Your task to perform on an android device: turn on showing notifications on the lock screen Image 0: 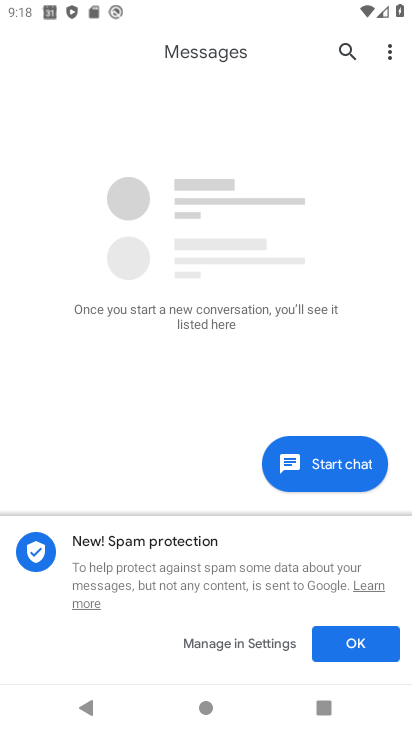
Step 0: press home button
Your task to perform on an android device: turn on showing notifications on the lock screen Image 1: 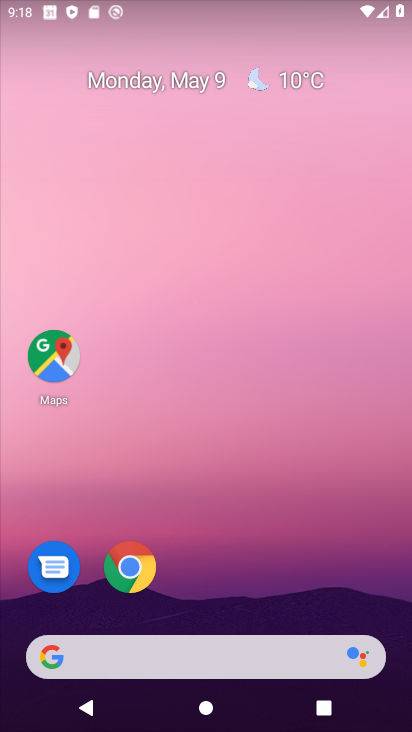
Step 1: drag from (315, 508) to (315, 60)
Your task to perform on an android device: turn on showing notifications on the lock screen Image 2: 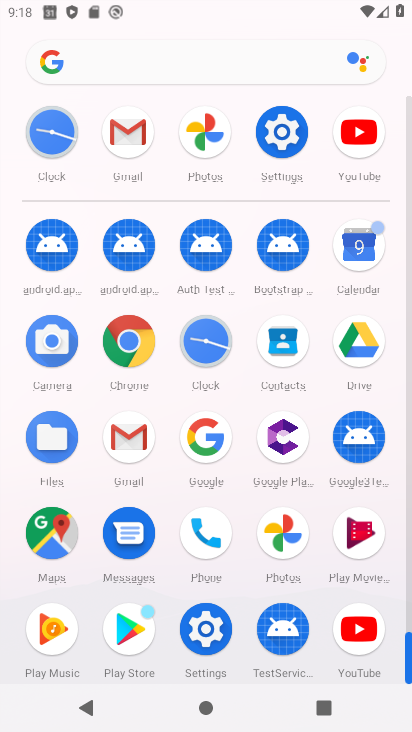
Step 2: click (289, 133)
Your task to perform on an android device: turn on showing notifications on the lock screen Image 3: 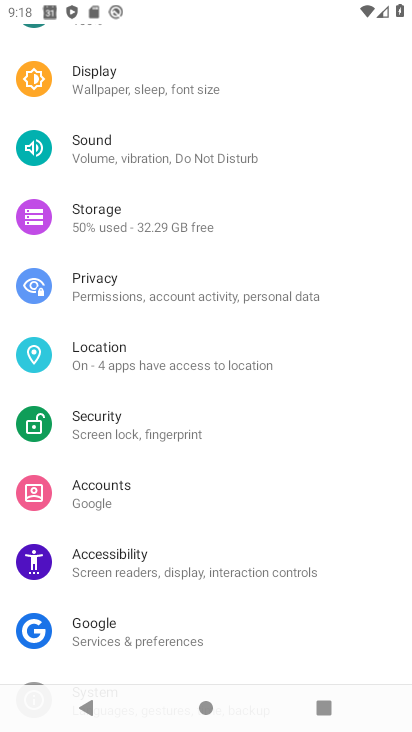
Step 3: drag from (225, 215) to (201, 658)
Your task to perform on an android device: turn on showing notifications on the lock screen Image 4: 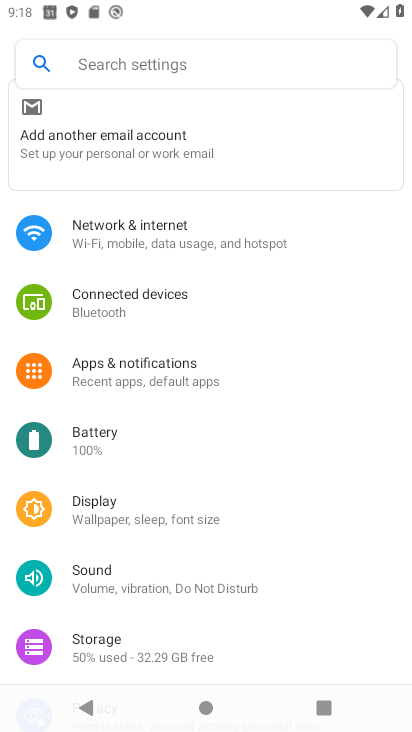
Step 4: click (189, 379)
Your task to perform on an android device: turn on showing notifications on the lock screen Image 5: 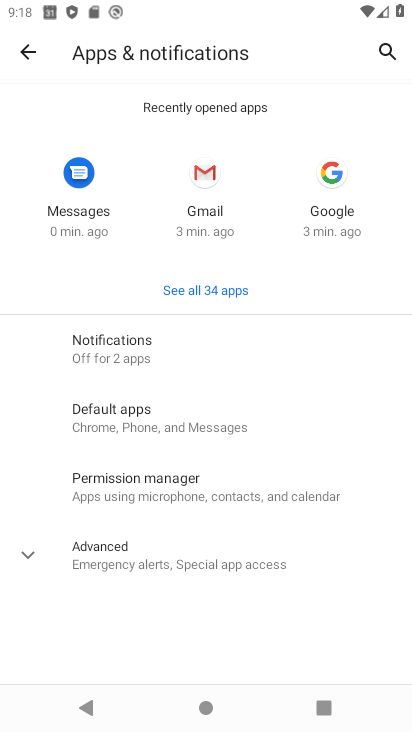
Step 5: click (189, 349)
Your task to perform on an android device: turn on showing notifications on the lock screen Image 6: 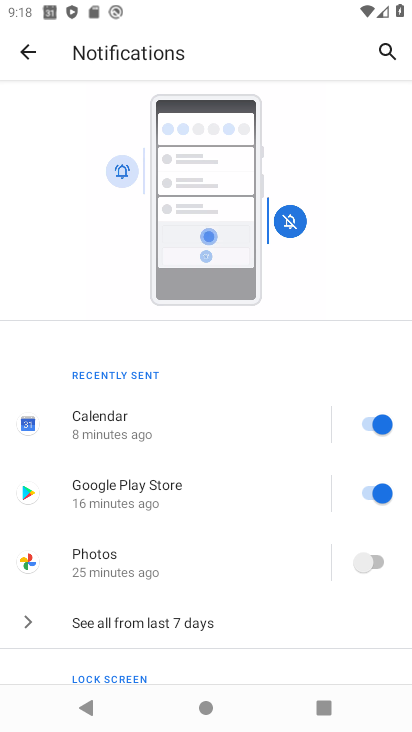
Step 6: task complete